Your task to perform on an android device: turn off picture-in-picture Image 0: 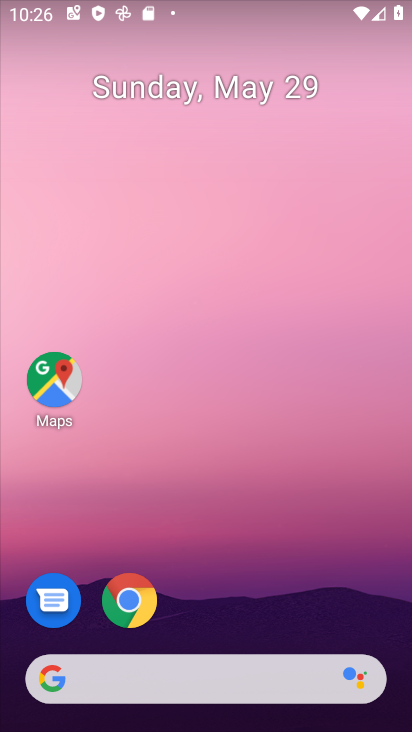
Step 0: drag from (227, 724) to (229, 132)
Your task to perform on an android device: turn off picture-in-picture Image 1: 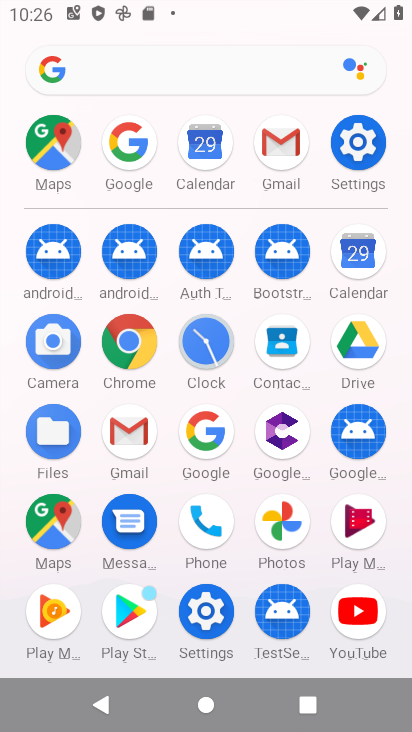
Step 1: click (357, 137)
Your task to perform on an android device: turn off picture-in-picture Image 2: 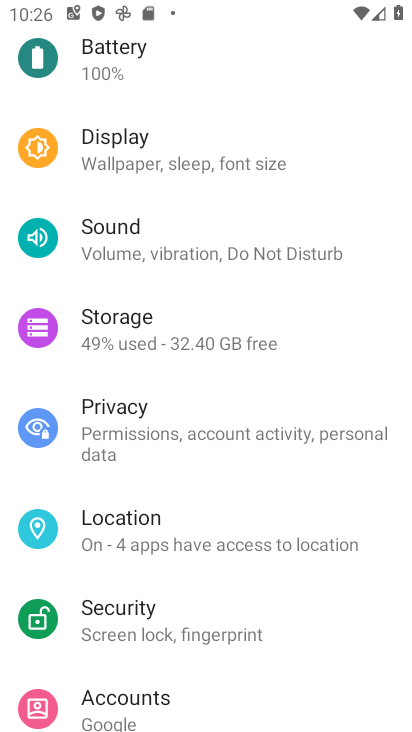
Step 2: click (120, 525)
Your task to perform on an android device: turn off picture-in-picture Image 3: 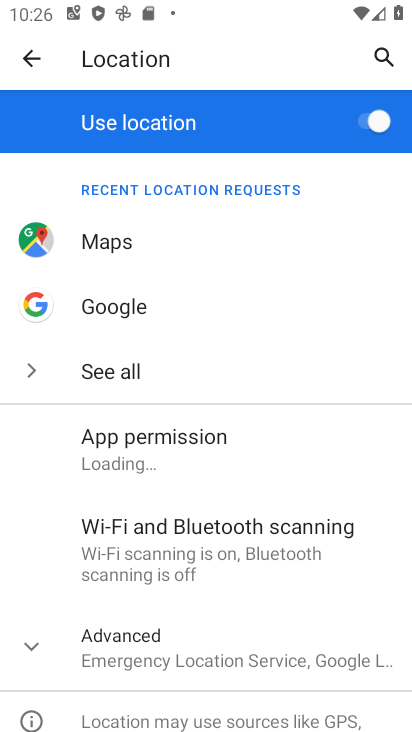
Step 3: drag from (142, 707) to (144, 282)
Your task to perform on an android device: turn off picture-in-picture Image 4: 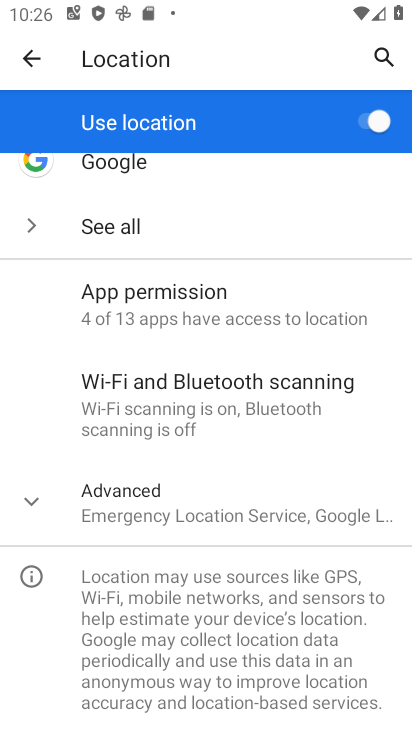
Step 4: click (32, 63)
Your task to perform on an android device: turn off picture-in-picture Image 5: 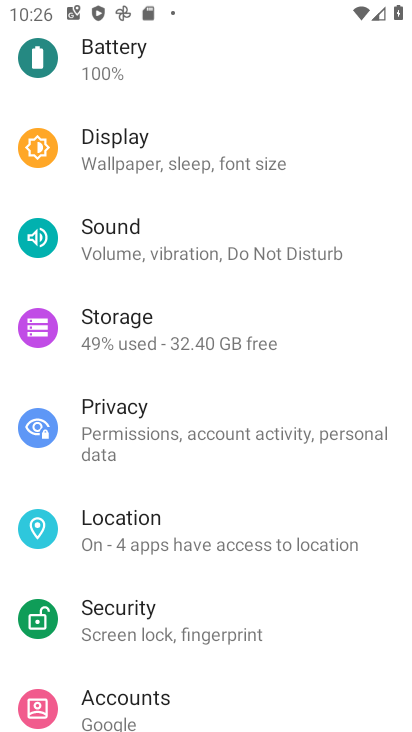
Step 5: drag from (215, 204) to (222, 389)
Your task to perform on an android device: turn off picture-in-picture Image 6: 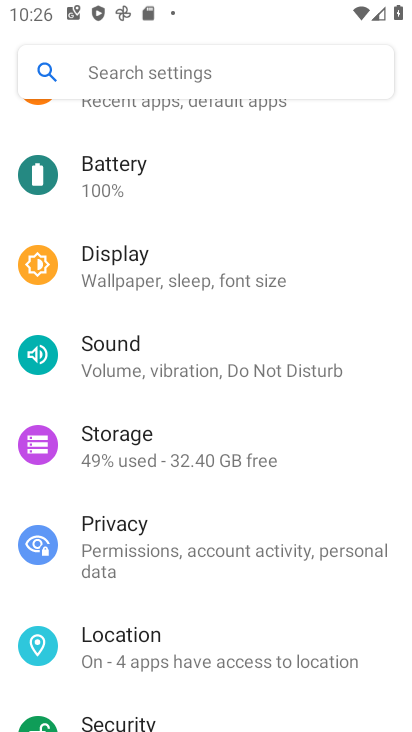
Step 6: drag from (227, 173) to (233, 515)
Your task to perform on an android device: turn off picture-in-picture Image 7: 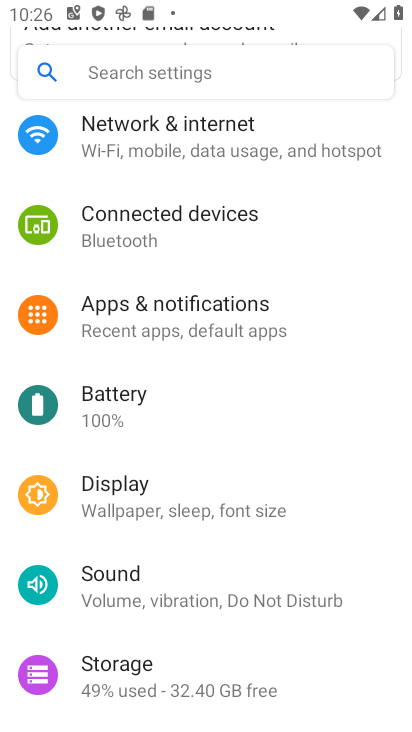
Step 7: drag from (197, 222) to (203, 493)
Your task to perform on an android device: turn off picture-in-picture Image 8: 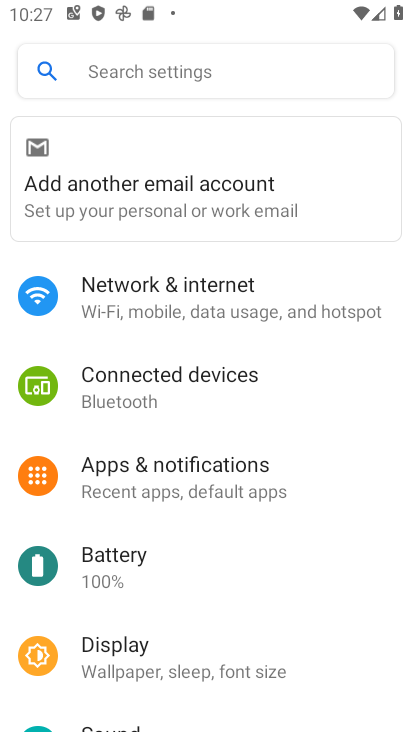
Step 8: click (145, 468)
Your task to perform on an android device: turn off picture-in-picture Image 9: 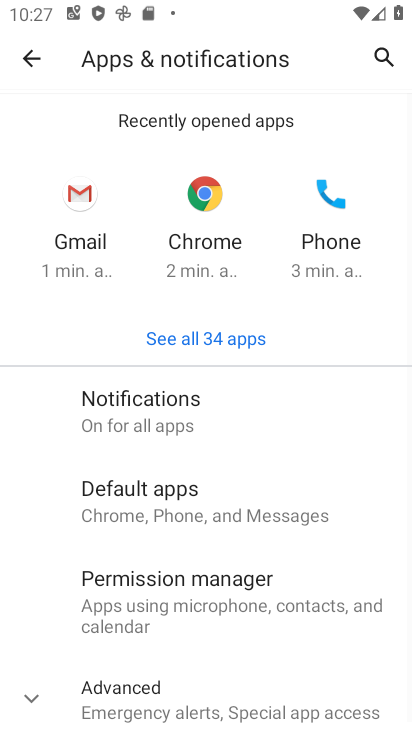
Step 9: drag from (148, 678) to (122, 283)
Your task to perform on an android device: turn off picture-in-picture Image 10: 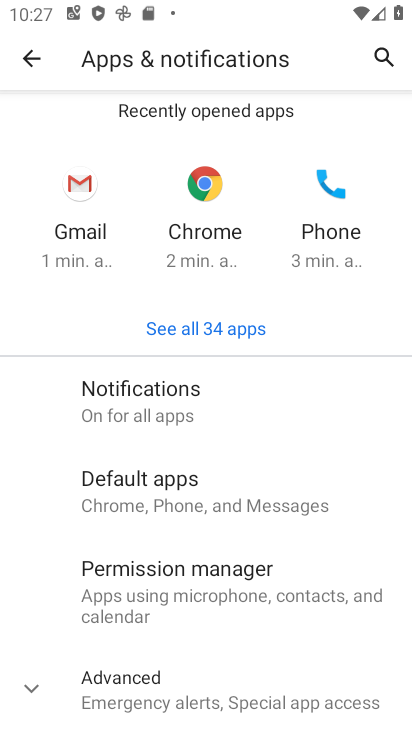
Step 10: click (105, 699)
Your task to perform on an android device: turn off picture-in-picture Image 11: 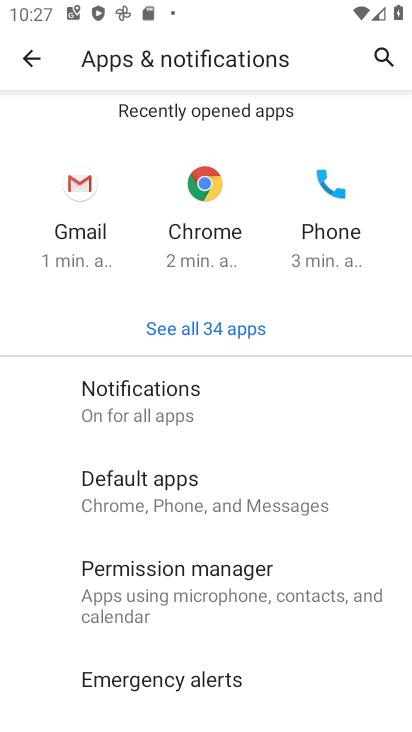
Step 11: drag from (174, 662) to (161, 425)
Your task to perform on an android device: turn off picture-in-picture Image 12: 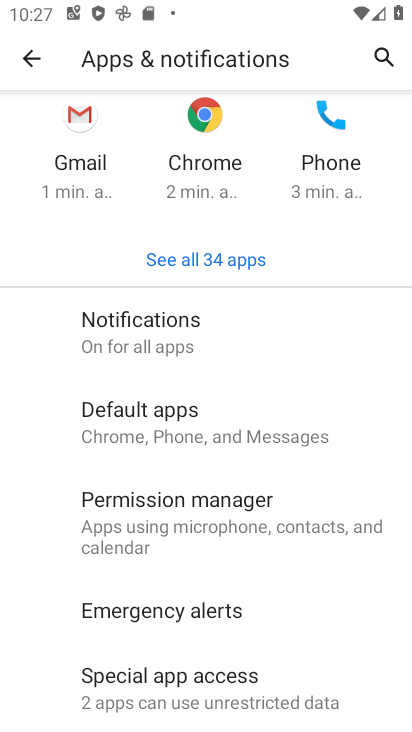
Step 12: click (159, 681)
Your task to perform on an android device: turn off picture-in-picture Image 13: 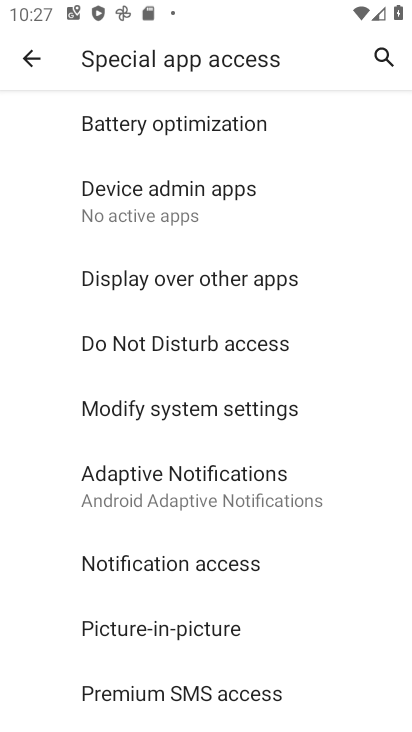
Step 13: click (135, 631)
Your task to perform on an android device: turn off picture-in-picture Image 14: 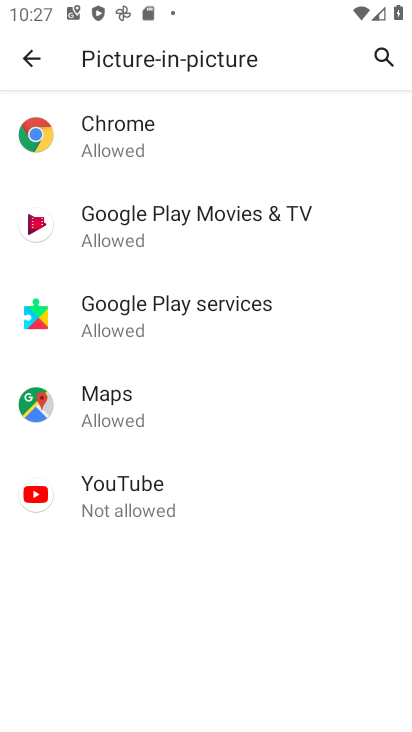
Step 14: click (143, 483)
Your task to perform on an android device: turn off picture-in-picture Image 15: 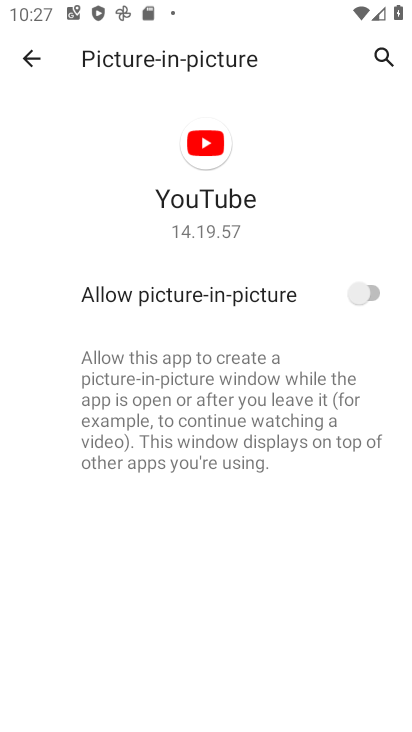
Step 15: task complete